Your task to perform on an android device: Go to calendar. Show me events next week Image 0: 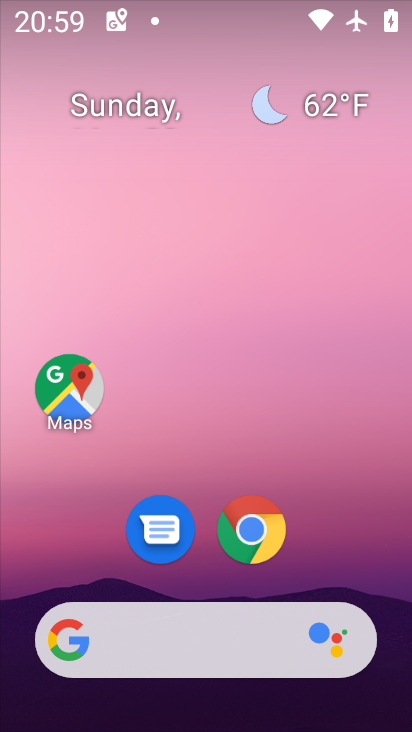
Step 0: drag from (274, 698) to (213, 75)
Your task to perform on an android device: Go to calendar. Show me events next week Image 1: 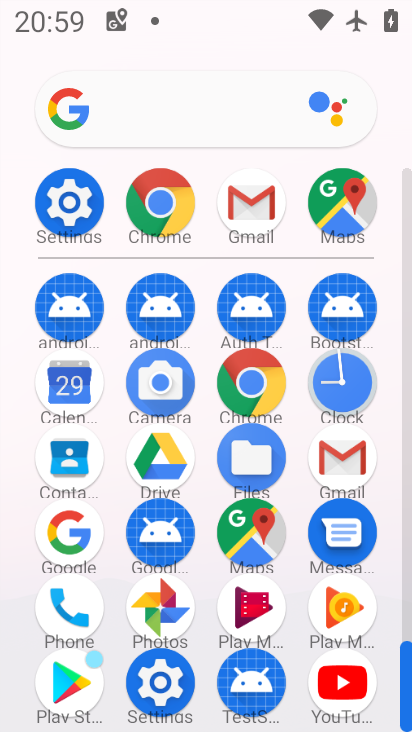
Step 1: click (69, 390)
Your task to perform on an android device: Go to calendar. Show me events next week Image 2: 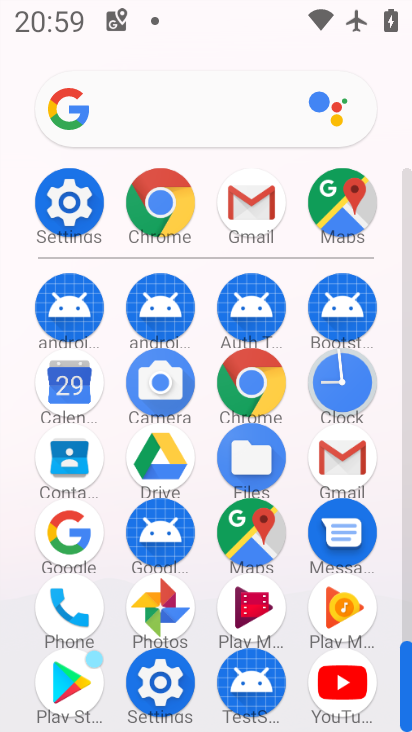
Step 2: click (69, 391)
Your task to perform on an android device: Go to calendar. Show me events next week Image 3: 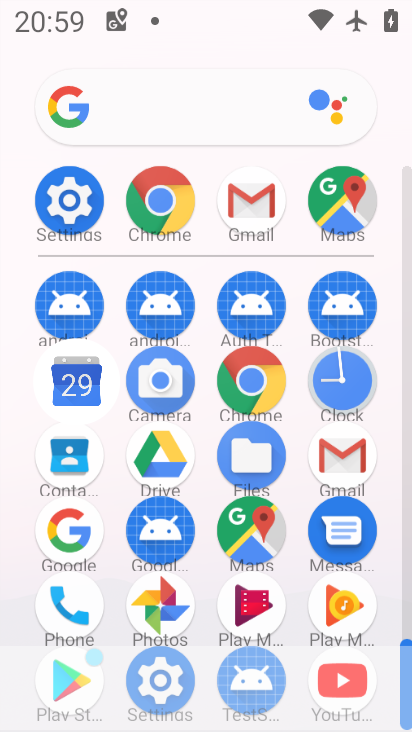
Step 3: click (71, 391)
Your task to perform on an android device: Go to calendar. Show me events next week Image 4: 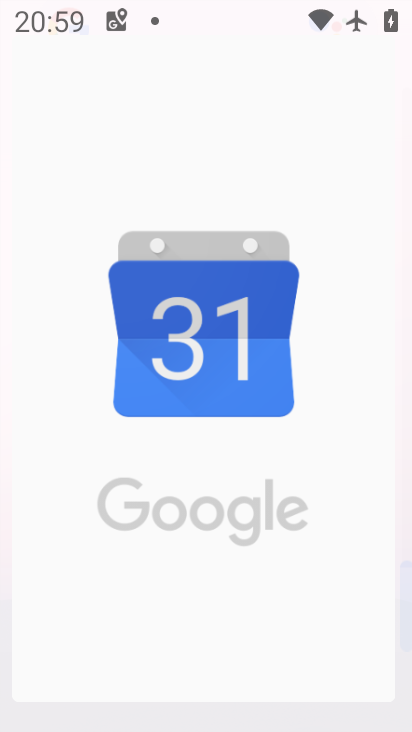
Step 4: click (71, 391)
Your task to perform on an android device: Go to calendar. Show me events next week Image 5: 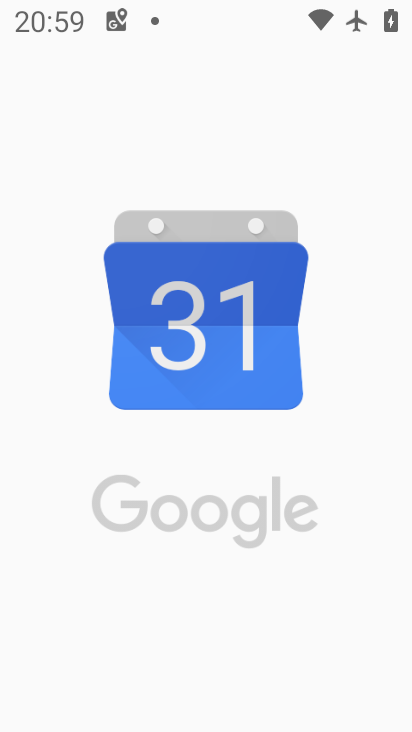
Step 5: click (73, 390)
Your task to perform on an android device: Go to calendar. Show me events next week Image 6: 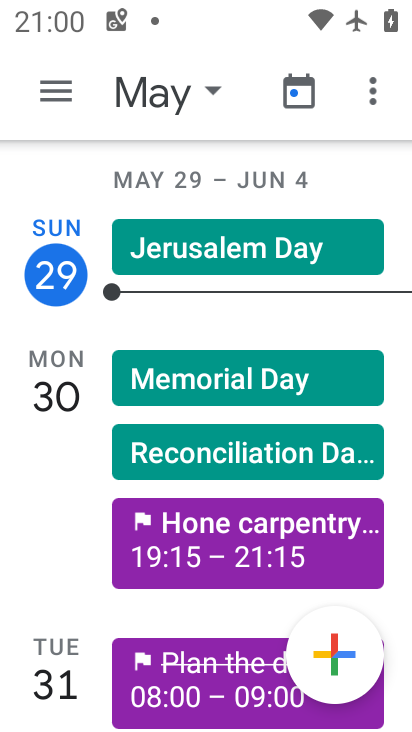
Step 6: click (209, 87)
Your task to perform on an android device: Go to calendar. Show me events next week Image 7: 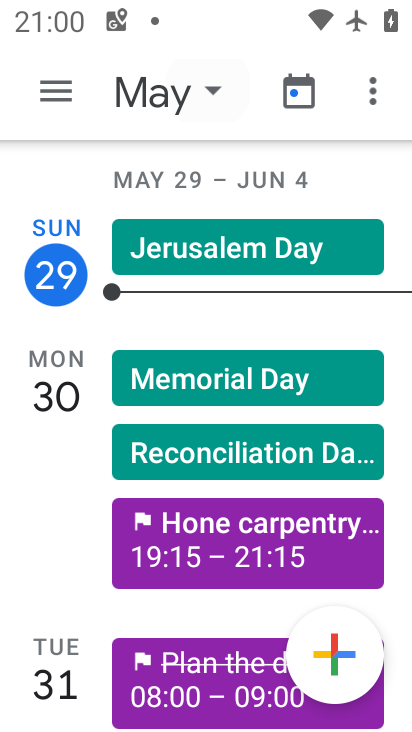
Step 7: click (209, 86)
Your task to perform on an android device: Go to calendar. Show me events next week Image 8: 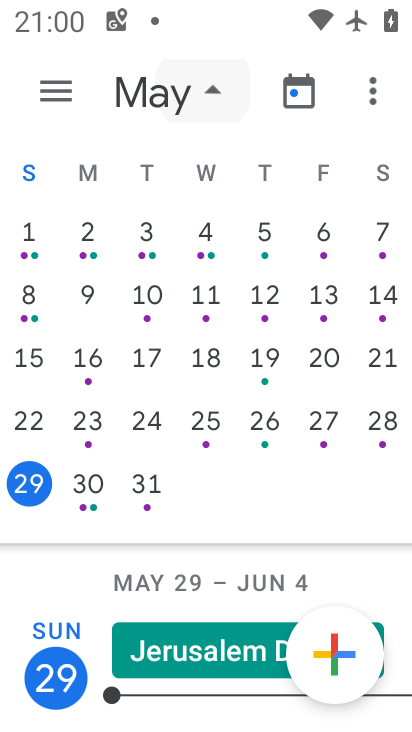
Step 8: click (209, 86)
Your task to perform on an android device: Go to calendar. Show me events next week Image 9: 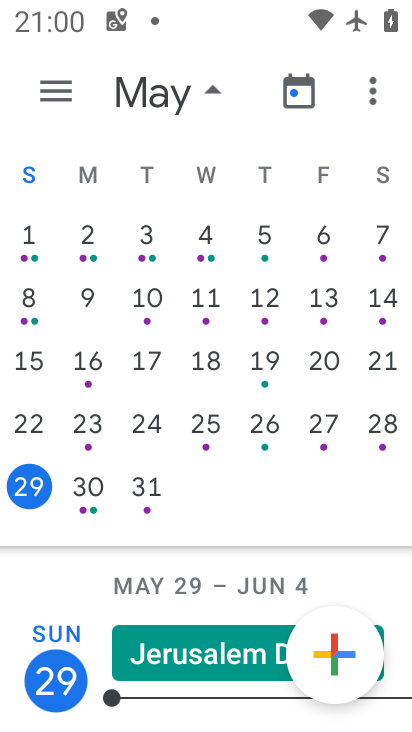
Step 9: drag from (279, 379) to (64, 413)
Your task to perform on an android device: Go to calendar. Show me events next week Image 10: 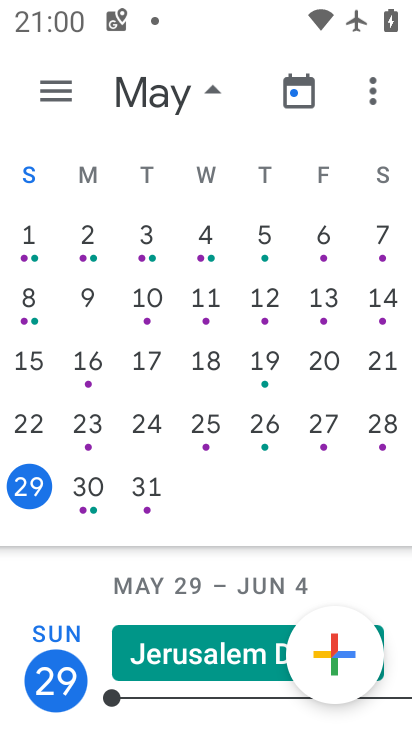
Step 10: drag from (28, 394) to (0, 309)
Your task to perform on an android device: Go to calendar. Show me events next week Image 11: 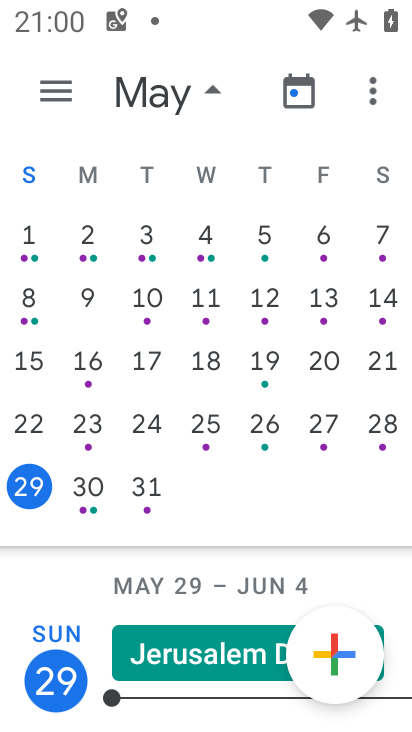
Step 11: drag from (296, 341) to (43, 419)
Your task to perform on an android device: Go to calendar. Show me events next week Image 12: 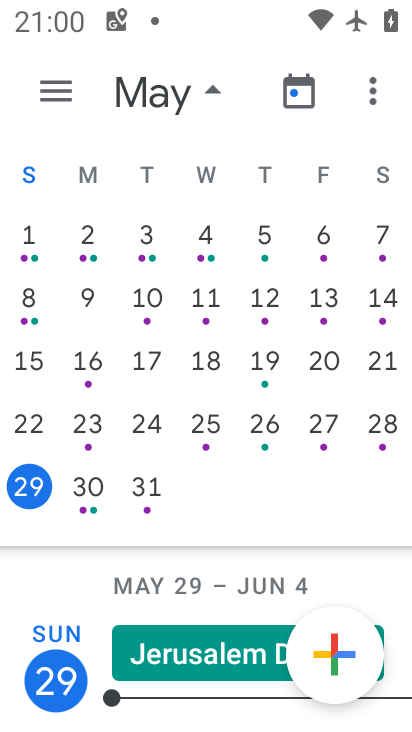
Step 12: drag from (306, 378) to (3, 415)
Your task to perform on an android device: Go to calendar. Show me events next week Image 13: 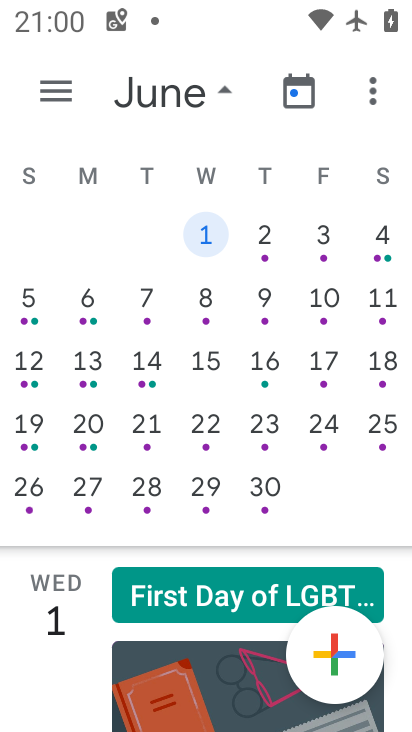
Step 13: click (260, 237)
Your task to perform on an android device: Go to calendar. Show me events next week Image 14: 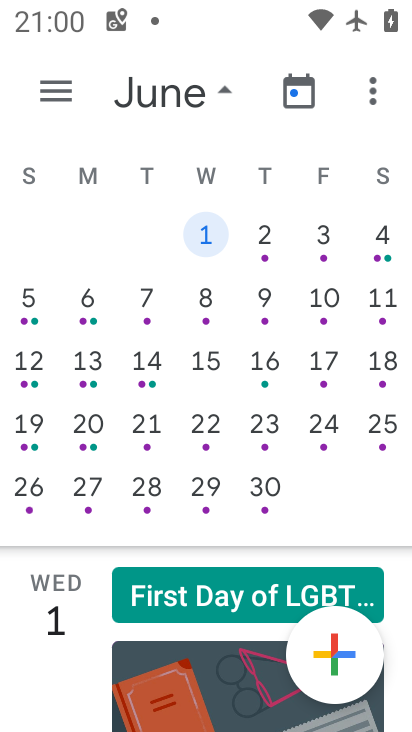
Step 14: click (260, 237)
Your task to perform on an android device: Go to calendar. Show me events next week Image 15: 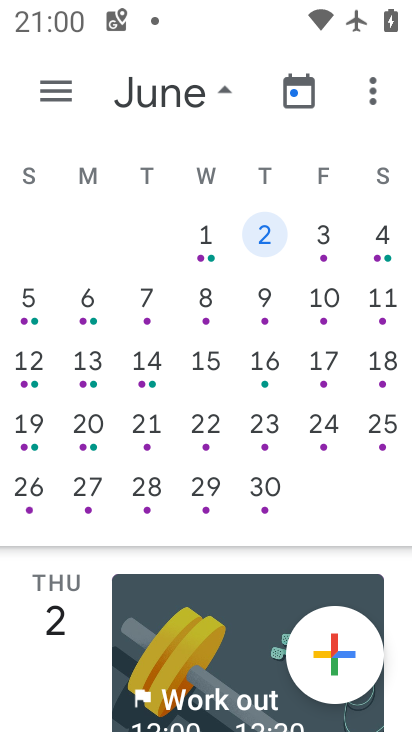
Step 15: click (202, 295)
Your task to perform on an android device: Go to calendar. Show me events next week Image 16: 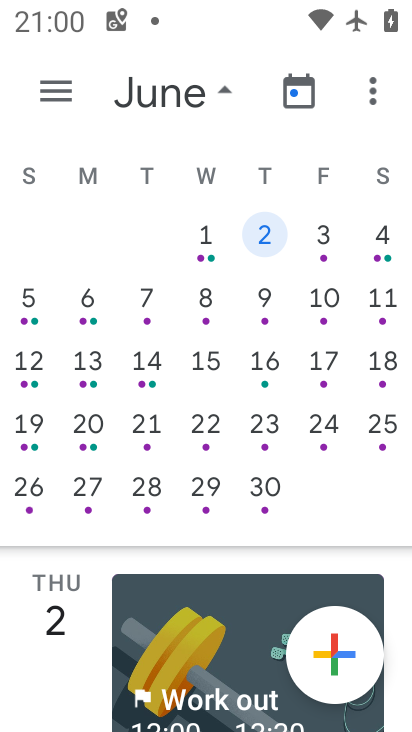
Step 16: click (201, 294)
Your task to perform on an android device: Go to calendar. Show me events next week Image 17: 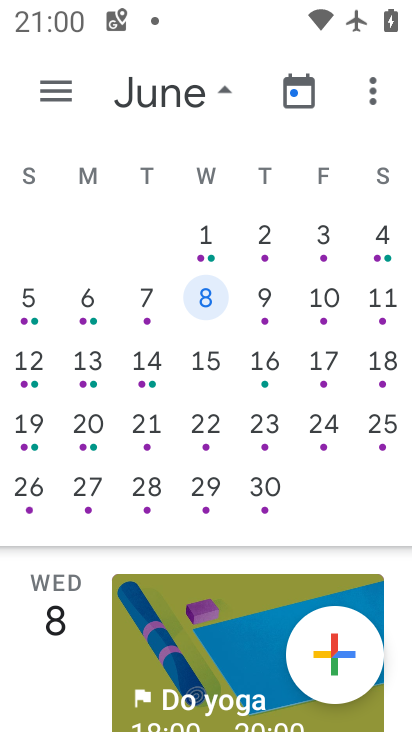
Step 17: click (202, 293)
Your task to perform on an android device: Go to calendar. Show me events next week Image 18: 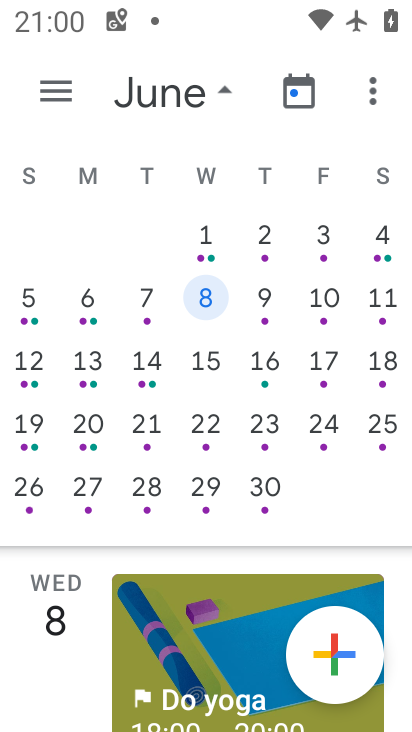
Step 18: click (206, 290)
Your task to perform on an android device: Go to calendar. Show me events next week Image 19: 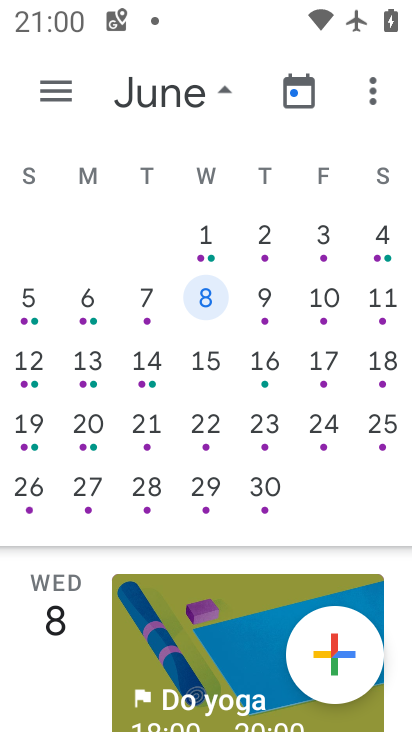
Step 19: click (202, 292)
Your task to perform on an android device: Go to calendar. Show me events next week Image 20: 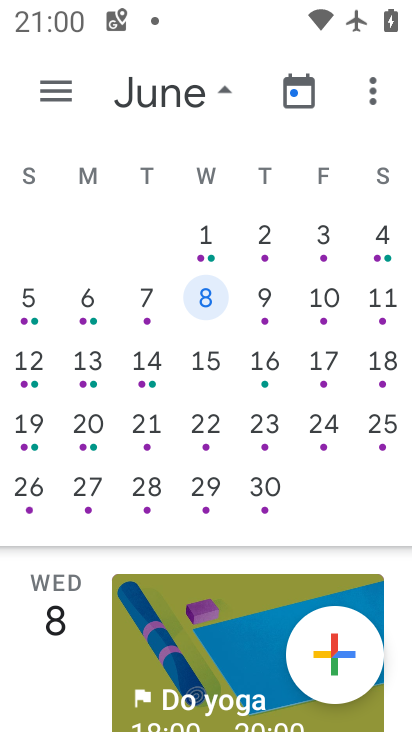
Step 20: task complete